Your task to perform on an android device: Open Google Chrome and open the bookmarks view Image 0: 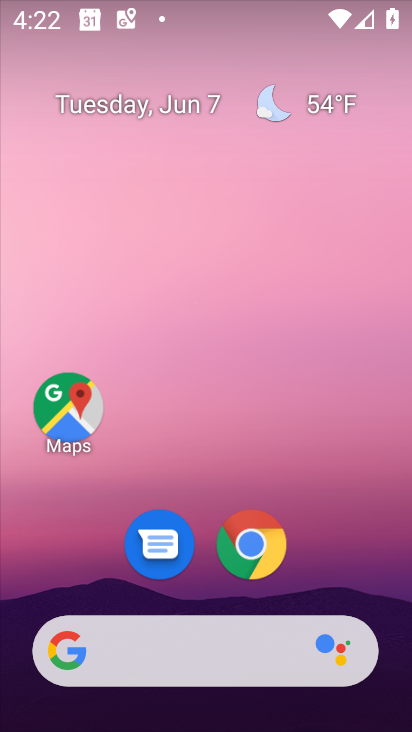
Step 0: task complete